Your task to perform on an android device: turn on bluetooth scan Image 0: 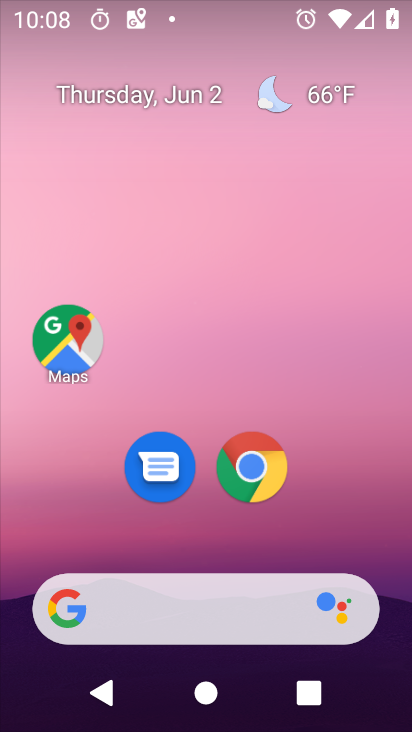
Step 0: drag from (85, 499) to (347, 162)
Your task to perform on an android device: turn on bluetooth scan Image 1: 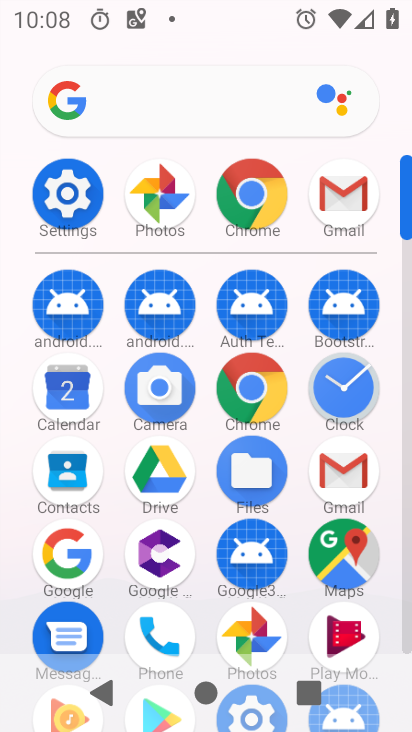
Step 1: click (57, 204)
Your task to perform on an android device: turn on bluetooth scan Image 2: 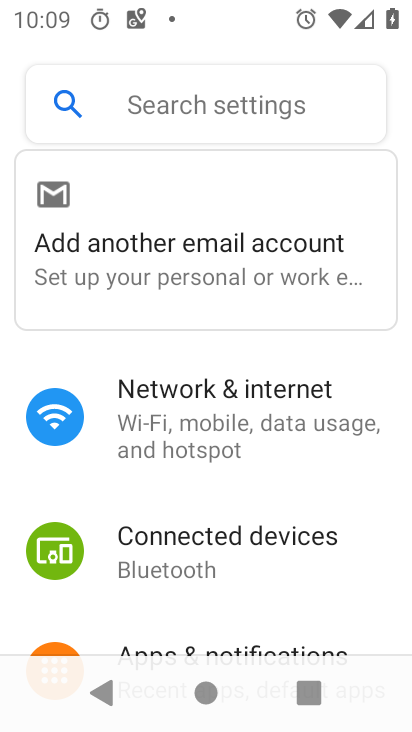
Step 2: drag from (31, 494) to (232, 181)
Your task to perform on an android device: turn on bluetooth scan Image 3: 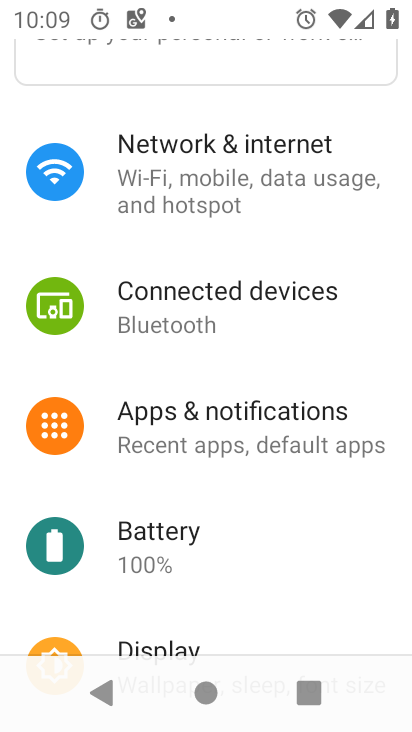
Step 3: drag from (7, 540) to (166, 242)
Your task to perform on an android device: turn on bluetooth scan Image 4: 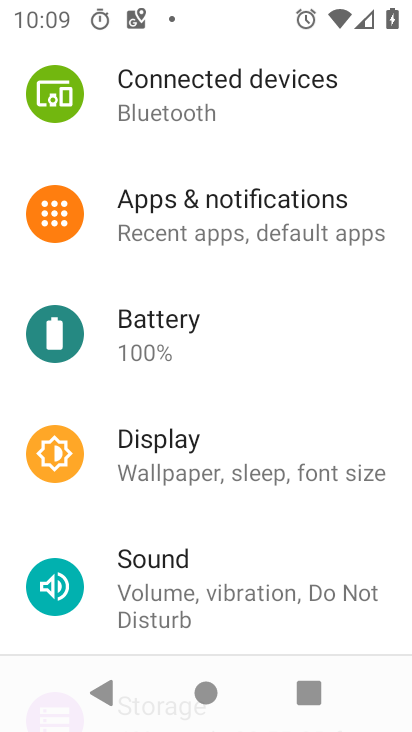
Step 4: drag from (27, 487) to (176, 226)
Your task to perform on an android device: turn on bluetooth scan Image 5: 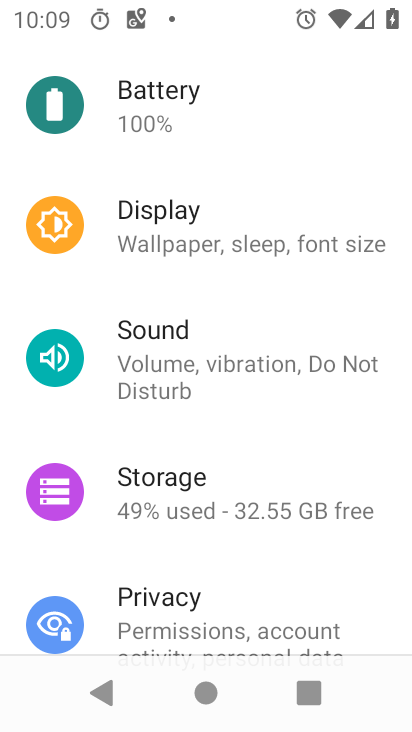
Step 5: drag from (30, 587) to (256, 207)
Your task to perform on an android device: turn on bluetooth scan Image 6: 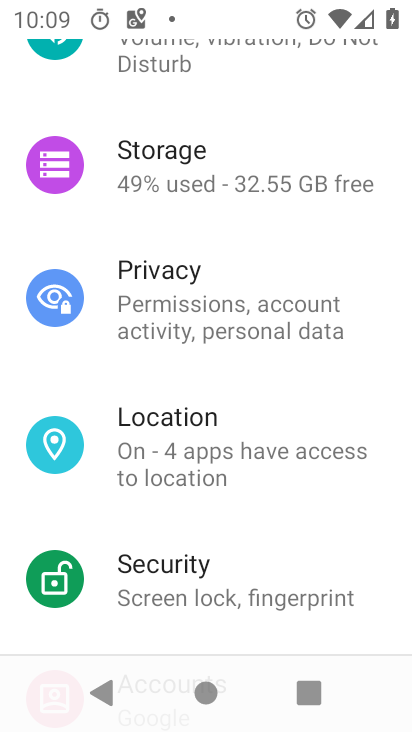
Step 6: drag from (203, 193) to (161, 632)
Your task to perform on an android device: turn on bluetooth scan Image 7: 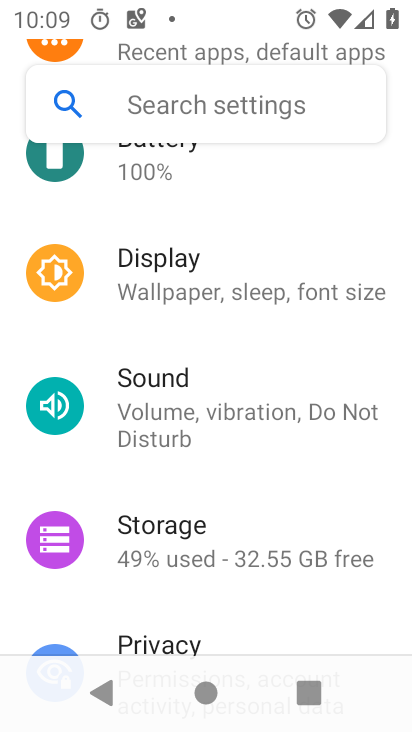
Step 7: drag from (7, 603) to (185, 162)
Your task to perform on an android device: turn on bluetooth scan Image 8: 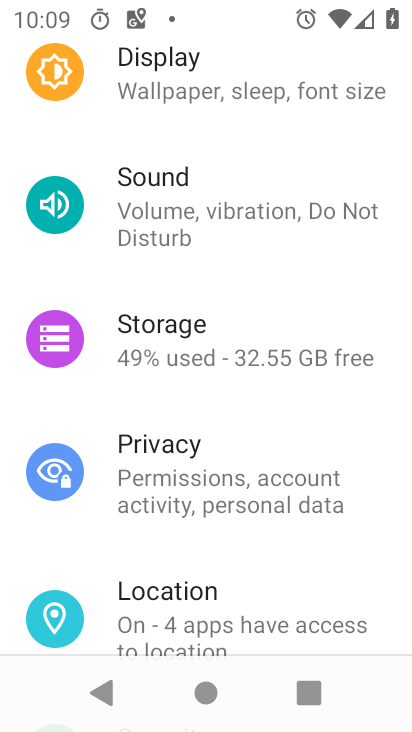
Step 8: click (173, 595)
Your task to perform on an android device: turn on bluetooth scan Image 9: 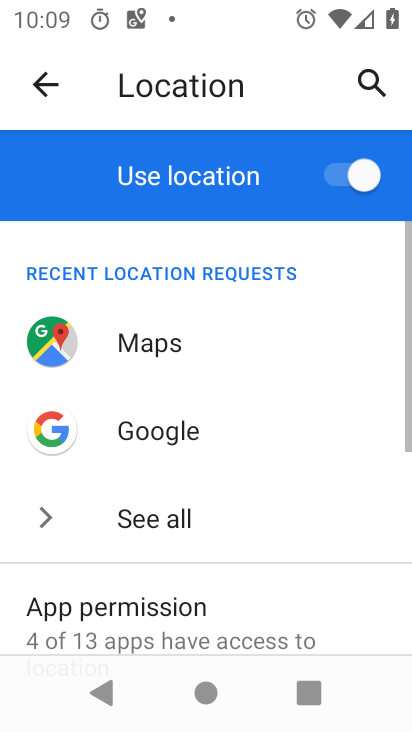
Step 9: drag from (12, 585) to (252, 239)
Your task to perform on an android device: turn on bluetooth scan Image 10: 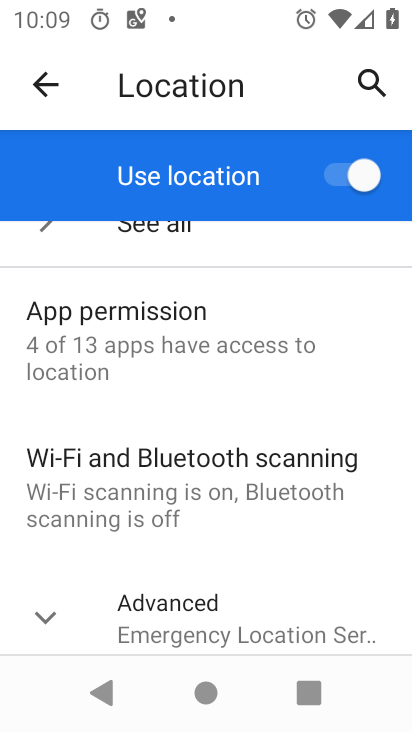
Step 10: click (266, 619)
Your task to perform on an android device: turn on bluetooth scan Image 11: 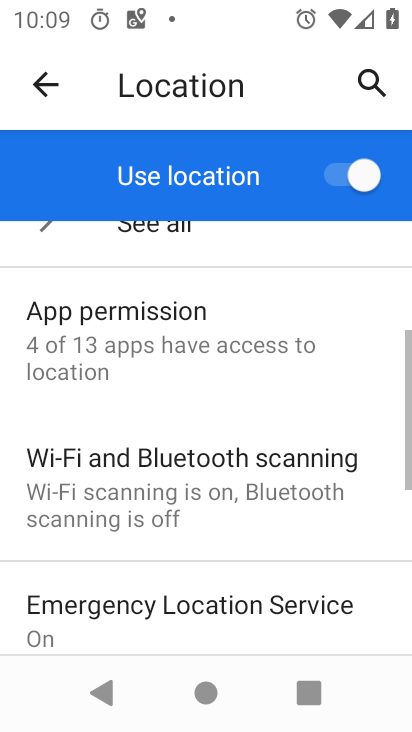
Step 11: drag from (95, 586) to (355, 168)
Your task to perform on an android device: turn on bluetooth scan Image 12: 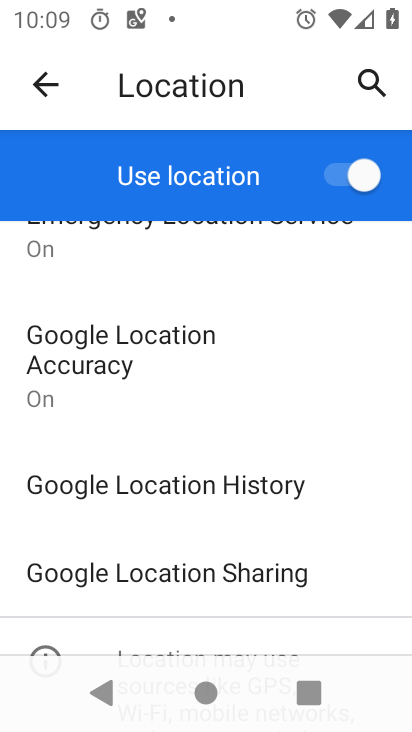
Step 12: drag from (22, 556) to (325, 198)
Your task to perform on an android device: turn on bluetooth scan Image 13: 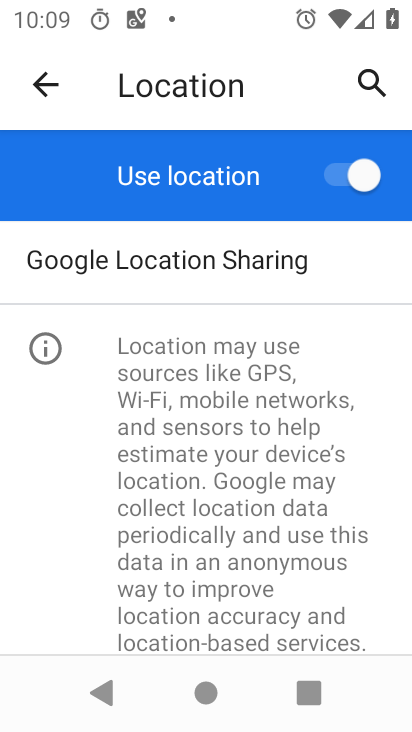
Step 13: drag from (64, 563) to (400, 185)
Your task to perform on an android device: turn on bluetooth scan Image 14: 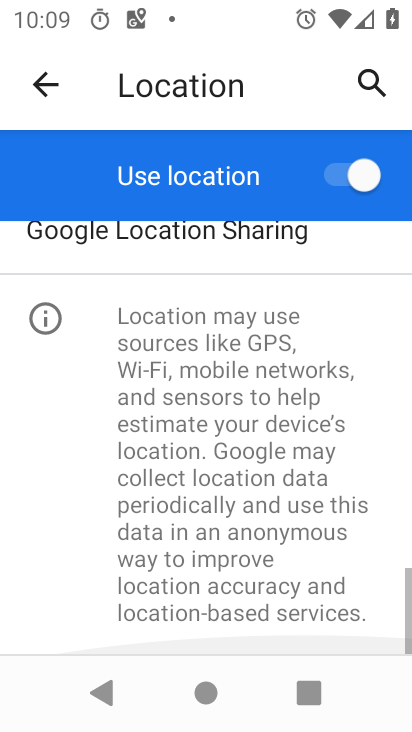
Step 14: drag from (261, 229) to (264, 663)
Your task to perform on an android device: turn on bluetooth scan Image 15: 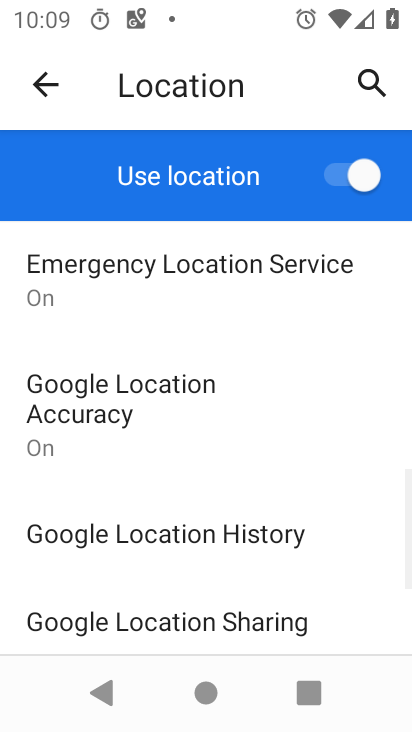
Step 15: drag from (220, 298) to (234, 591)
Your task to perform on an android device: turn on bluetooth scan Image 16: 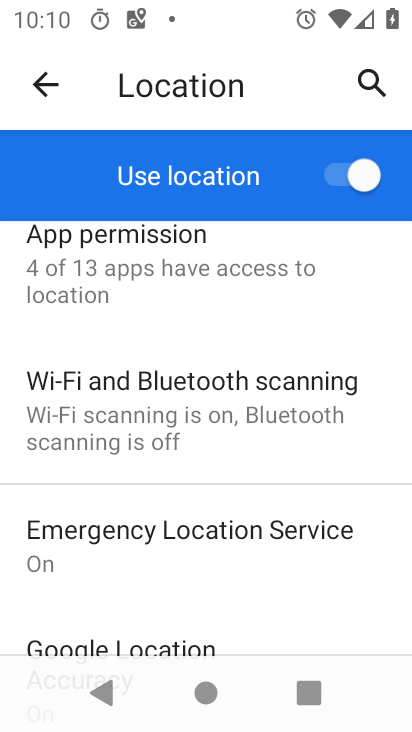
Step 16: drag from (261, 290) to (294, 490)
Your task to perform on an android device: turn on bluetooth scan Image 17: 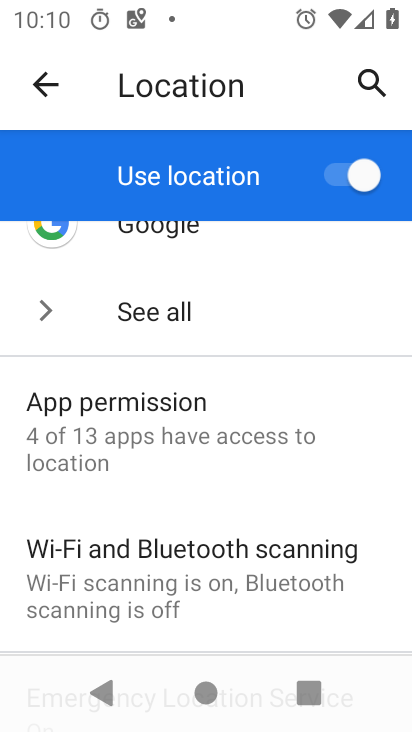
Step 17: click (124, 559)
Your task to perform on an android device: turn on bluetooth scan Image 18: 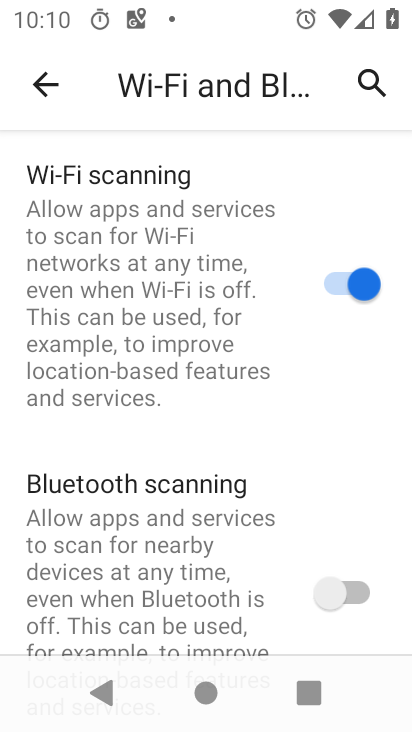
Step 18: click (327, 597)
Your task to perform on an android device: turn on bluetooth scan Image 19: 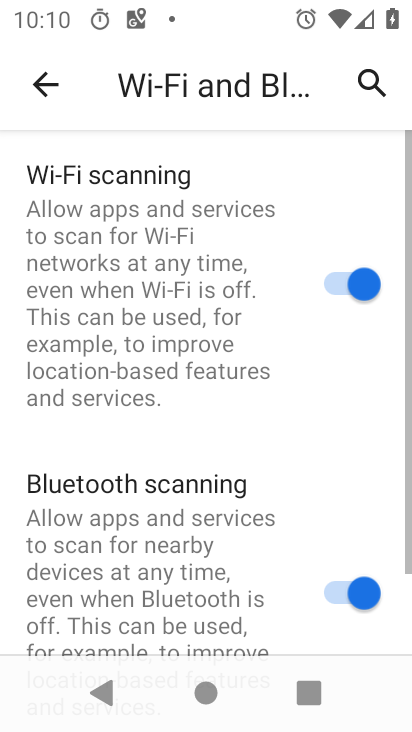
Step 19: task complete